Your task to perform on an android device: Open internet settings Image 0: 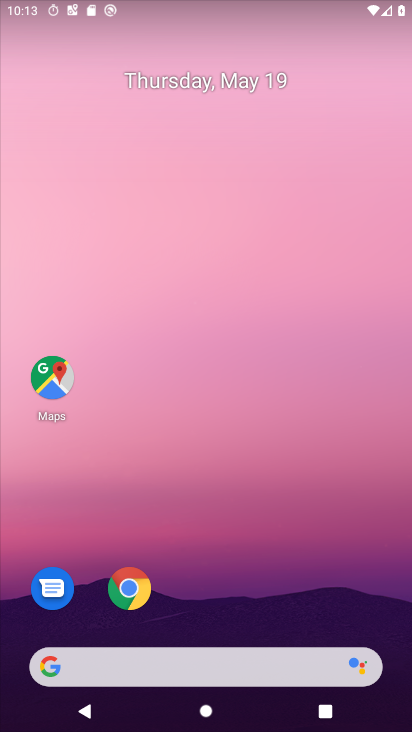
Step 0: press home button
Your task to perform on an android device: Open internet settings Image 1: 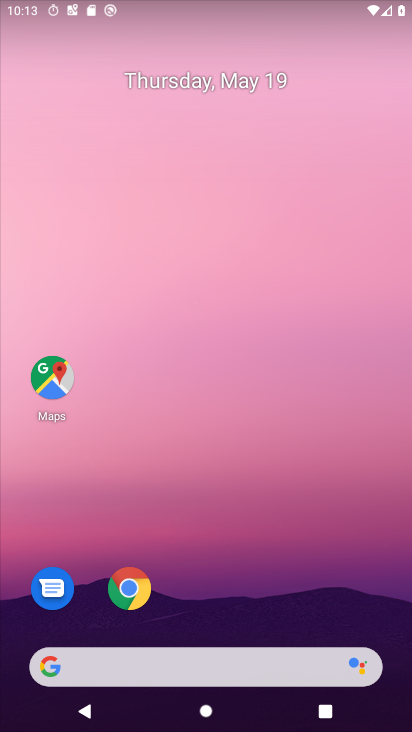
Step 1: drag from (144, 668) to (296, 98)
Your task to perform on an android device: Open internet settings Image 2: 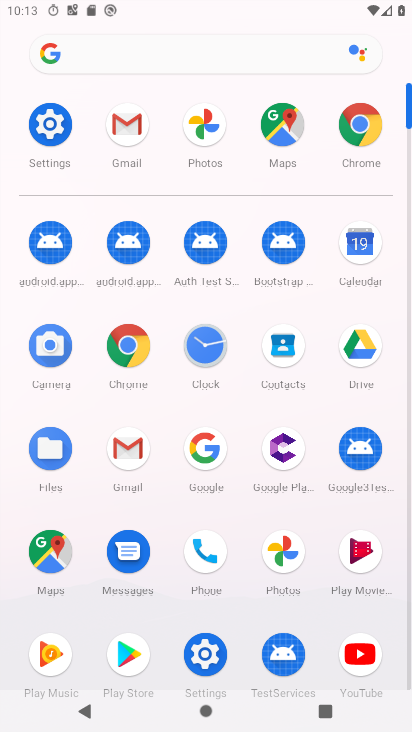
Step 2: click (49, 133)
Your task to perform on an android device: Open internet settings Image 3: 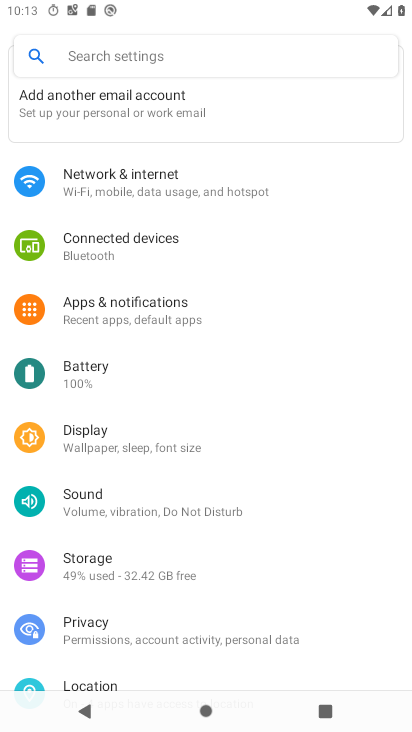
Step 3: click (161, 185)
Your task to perform on an android device: Open internet settings Image 4: 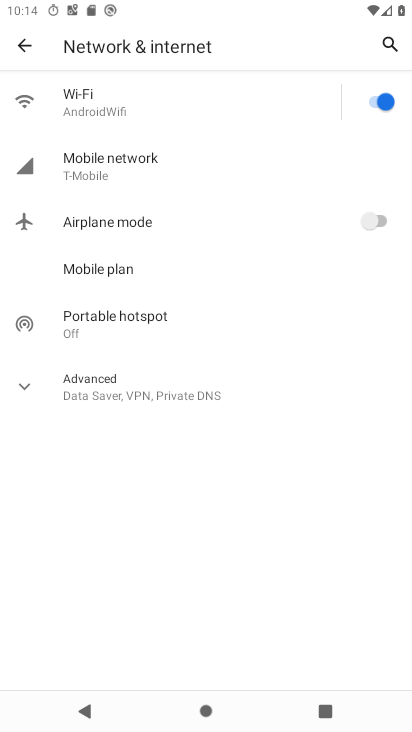
Step 4: task complete